Your task to perform on an android device: What's on my calendar today? Image 0: 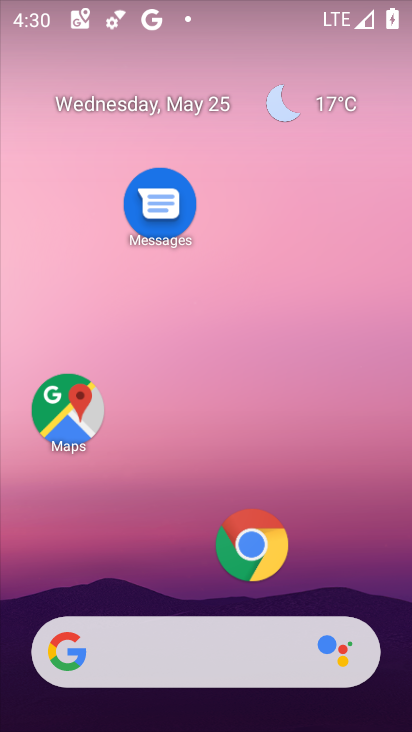
Step 0: click (184, 90)
Your task to perform on an android device: What's on my calendar today? Image 1: 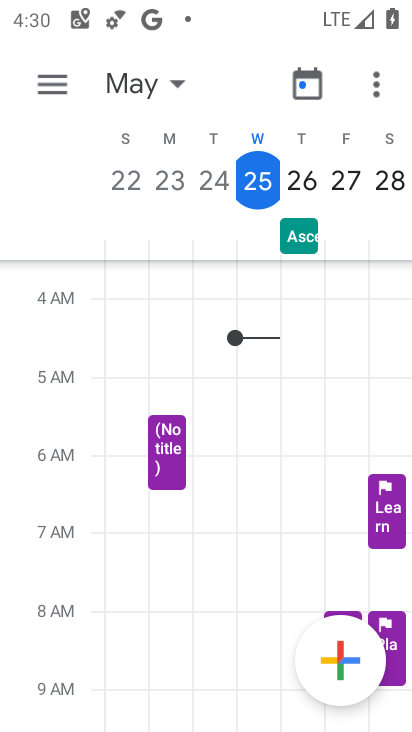
Step 1: click (56, 85)
Your task to perform on an android device: What's on my calendar today? Image 2: 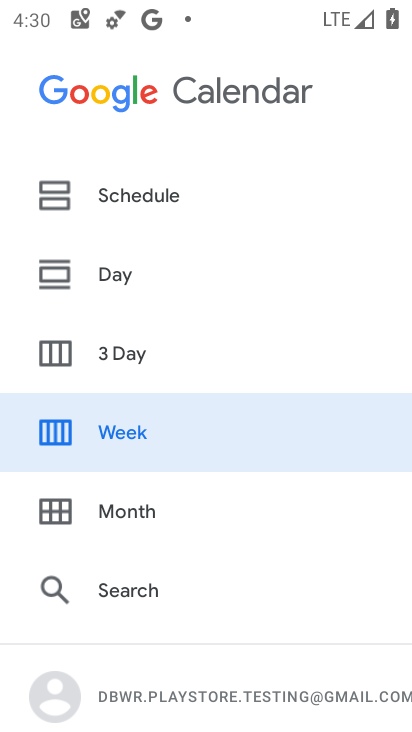
Step 2: click (157, 187)
Your task to perform on an android device: What's on my calendar today? Image 3: 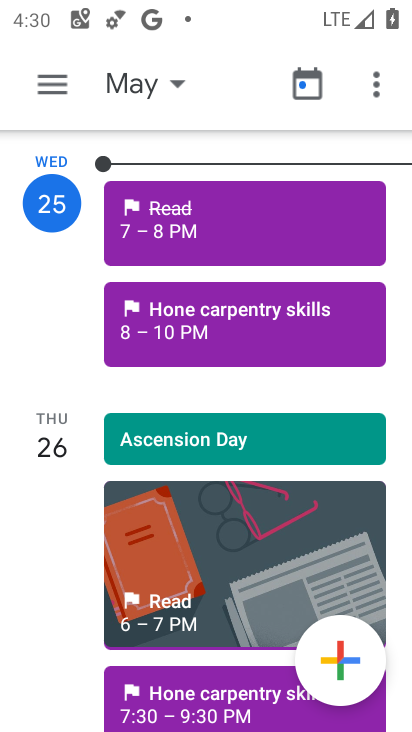
Step 3: task complete